Your task to perform on an android device: Go to display settings Image 0: 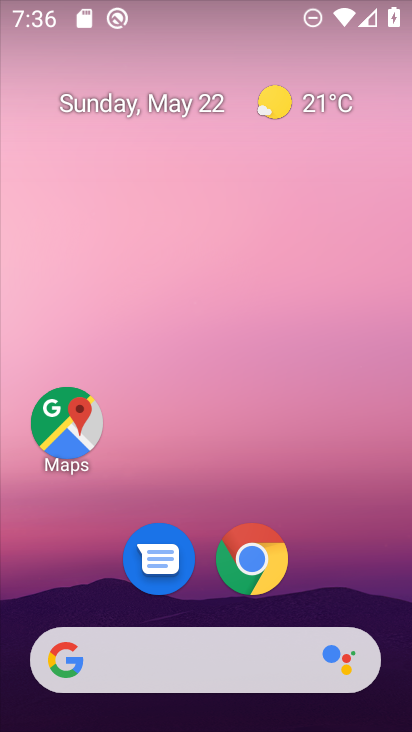
Step 0: press home button
Your task to perform on an android device: Go to display settings Image 1: 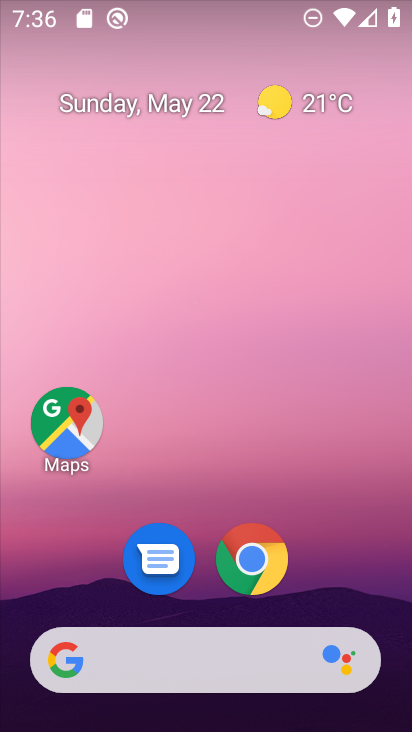
Step 1: drag from (246, 690) to (328, 107)
Your task to perform on an android device: Go to display settings Image 2: 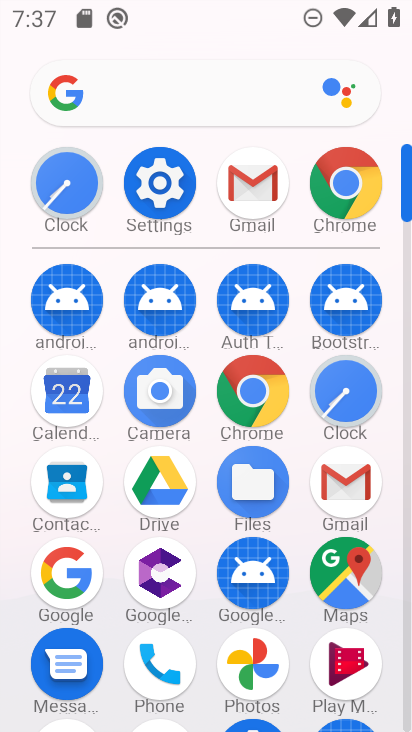
Step 2: click (159, 212)
Your task to perform on an android device: Go to display settings Image 3: 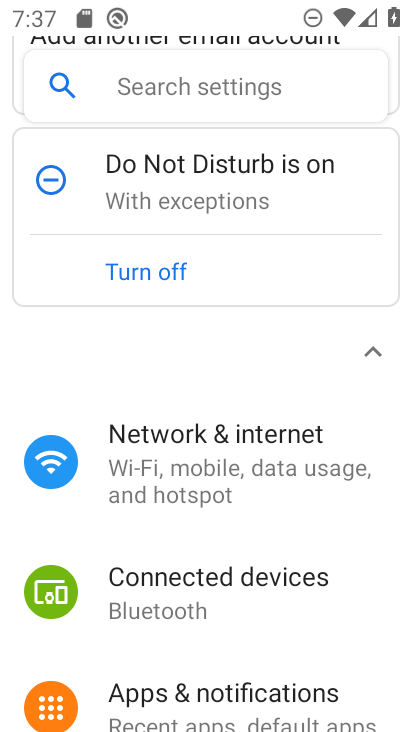
Step 3: drag from (247, 645) to (238, 218)
Your task to perform on an android device: Go to display settings Image 4: 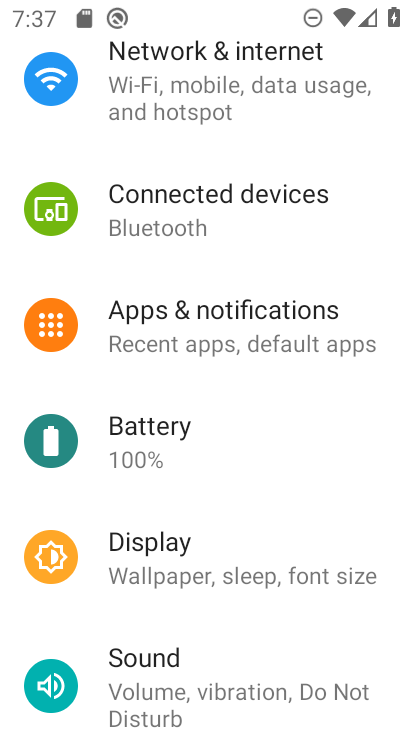
Step 4: click (197, 539)
Your task to perform on an android device: Go to display settings Image 5: 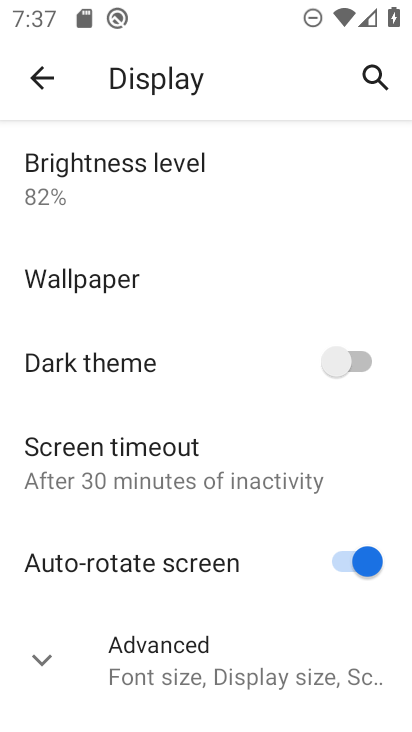
Step 5: task complete